Your task to perform on an android device: Open Chrome and go to the settings page Image 0: 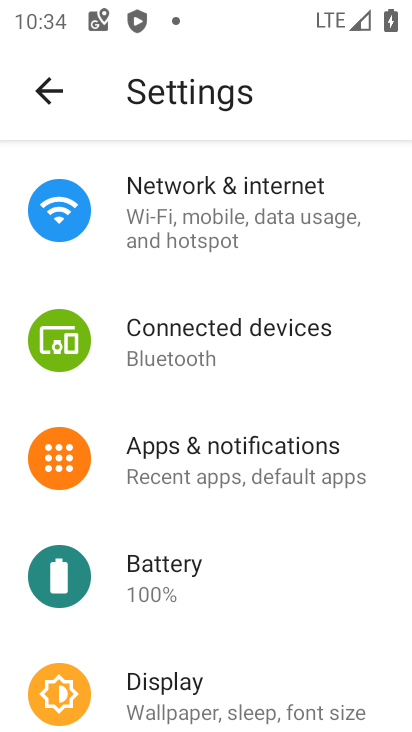
Step 0: press home button
Your task to perform on an android device: Open Chrome and go to the settings page Image 1: 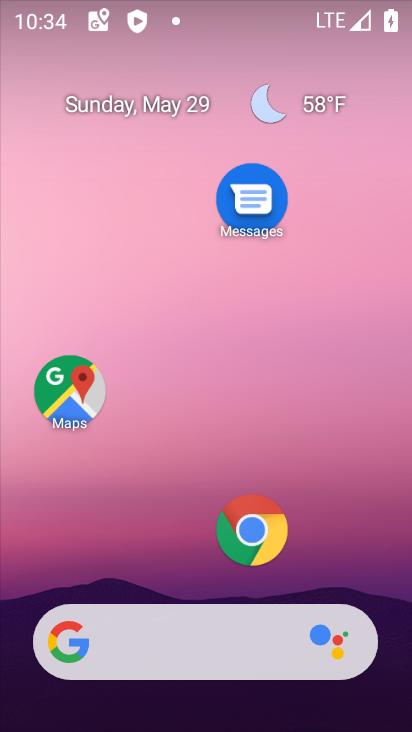
Step 1: click (256, 530)
Your task to perform on an android device: Open Chrome and go to the settings page Image 2: 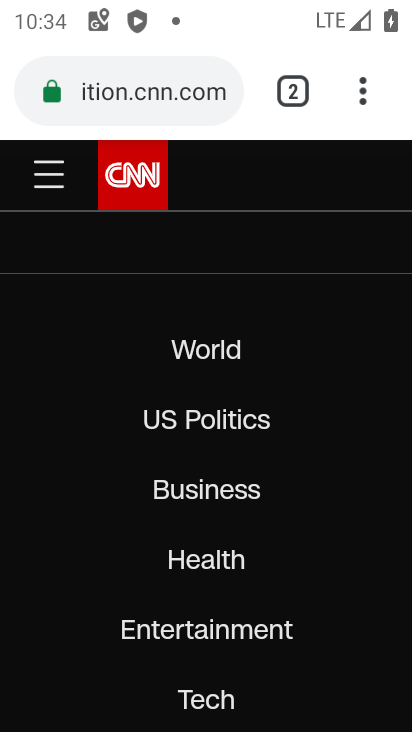
Step 2: click (365, 98)
Your task to perform on an android device: Open Chrome and go to the settings page Image 3: 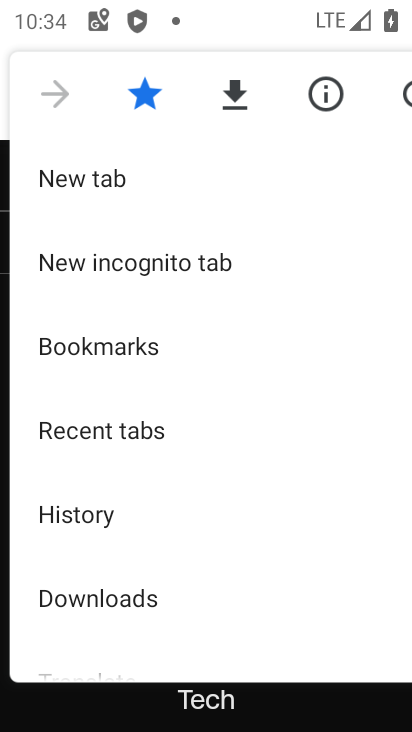
Step 3: drag from (157, 635) to (216, 91)
Your task to perform on an android device: Open Chrome and go to the settings page Image 4: 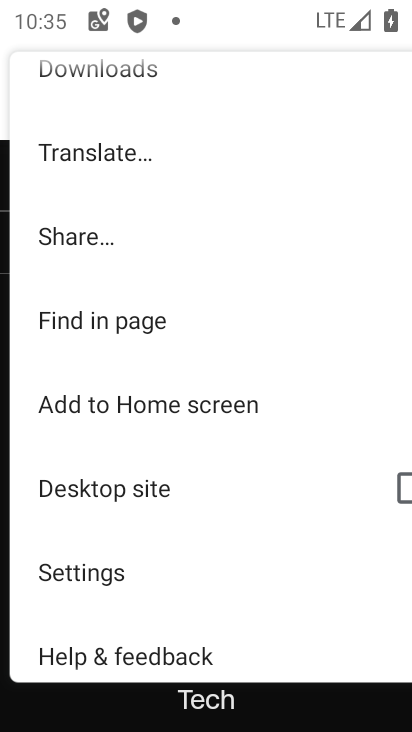
Step 4: click (91, 588)
Your task to perform on an android device: Open Chrome and go to the settings page Image 5: 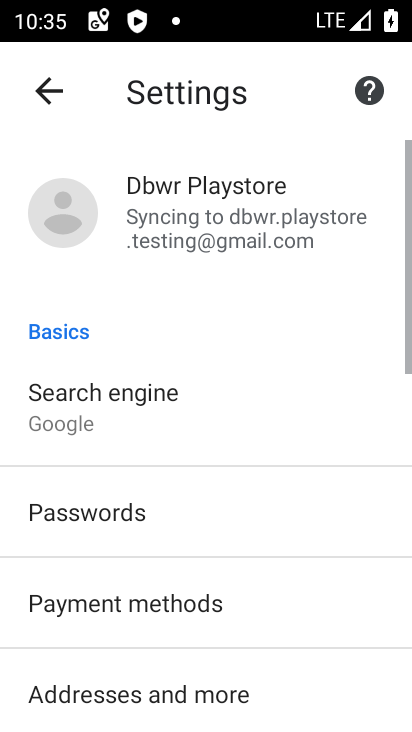
Step 5: task complete